Your task to perform on an android device: check storage Image 0: 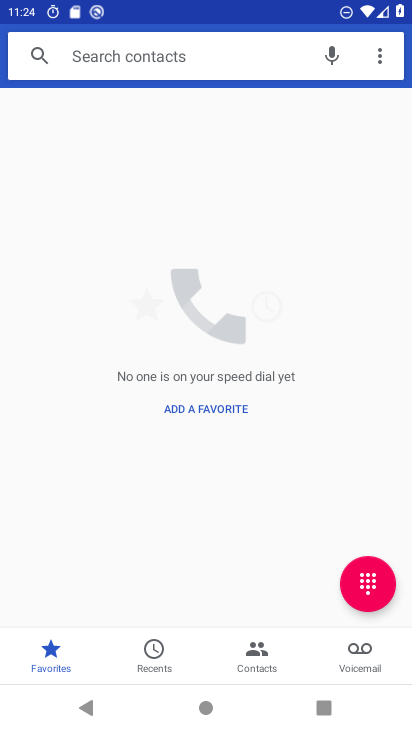
Step 0: press home button
Your task to perform on an android device: check storage Image 1: 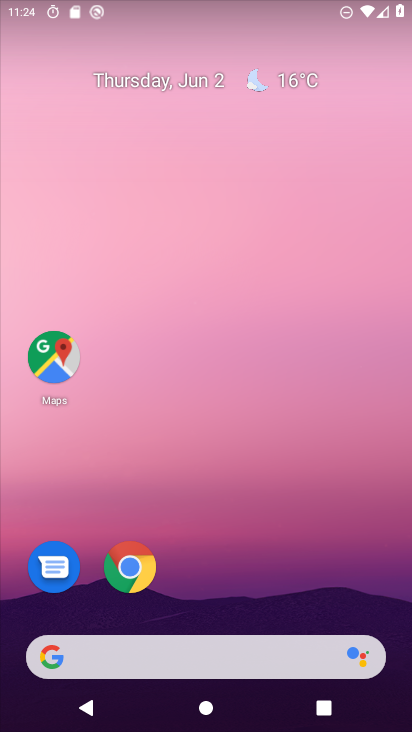
Step 1: drag from (141, 728) to (76, 56)
Your task to perform on an android device: check storage Image 2: 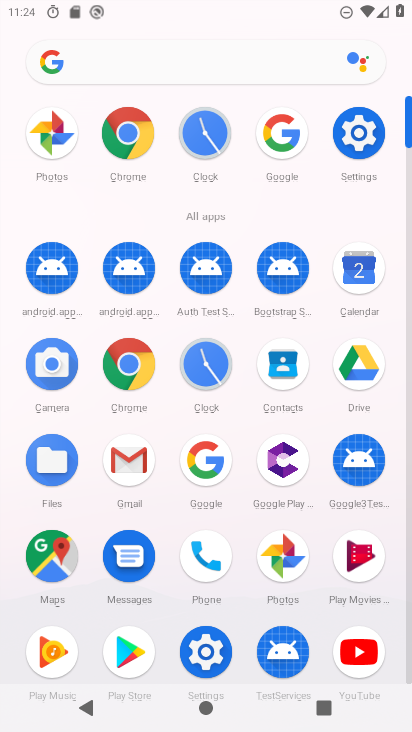
Step 2: click (221, 664)
Your task to perform on an android device: check storage Image 3: 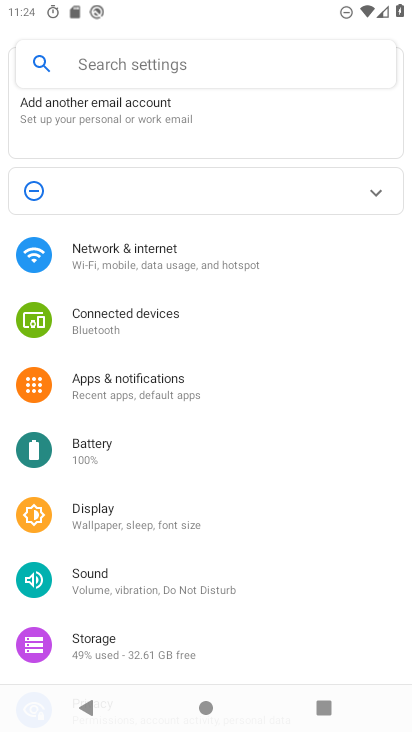
Step 3: drag from (216, 617) to (219, 171)
Your task to perform on an android device: check storage Image 4: 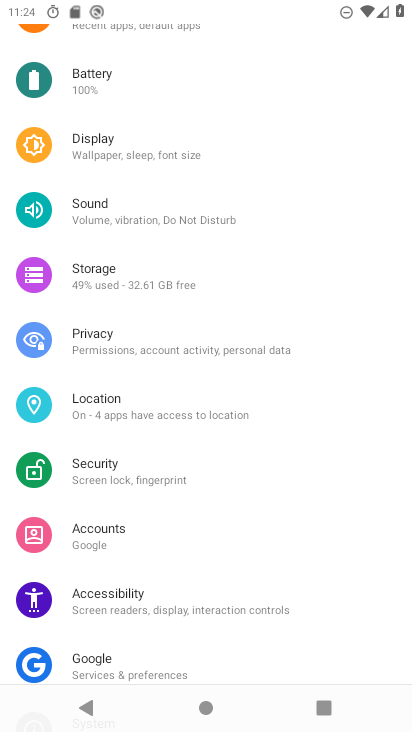
Step 4: click (121, 308)
Your task to perform on an android device: check storage Image 5: 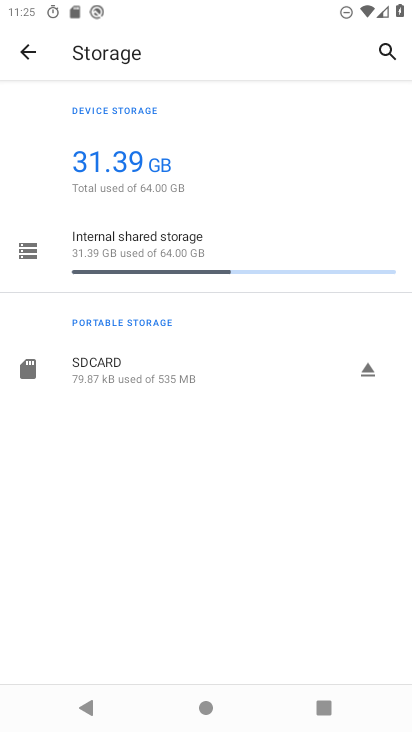
Step 5: task complete